Your task to perform on an android device: turn on data saver in the chrome app Image 0: 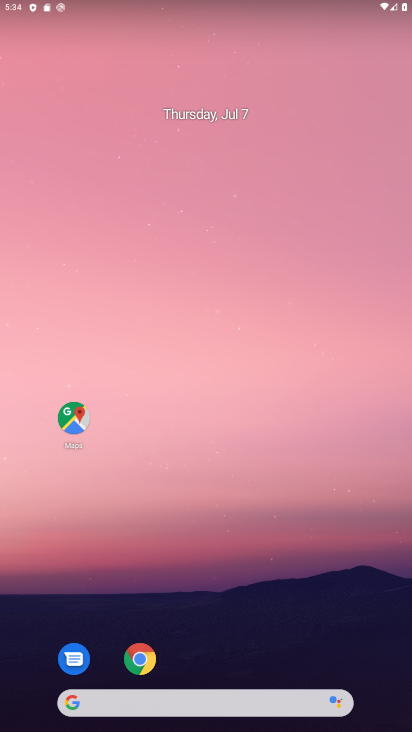
Step 0: drag from (320, 579) to (370, 0)
Your task to perform on an android device: turn on data saver in the chrome app Image 1: 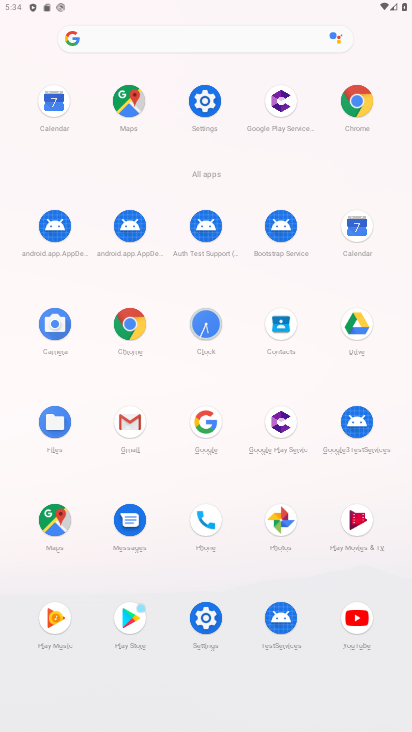
Step 1: click (354, 95)
Your task to perform on an android device: turn on data saver in the chrome app Image 2: 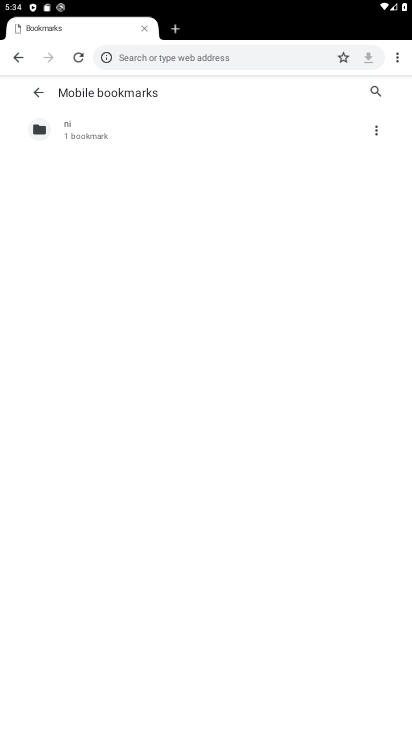
Step 2: click (397, 63)
Your task to perform on an android device: turn on data saver in the chrome app Image 3: 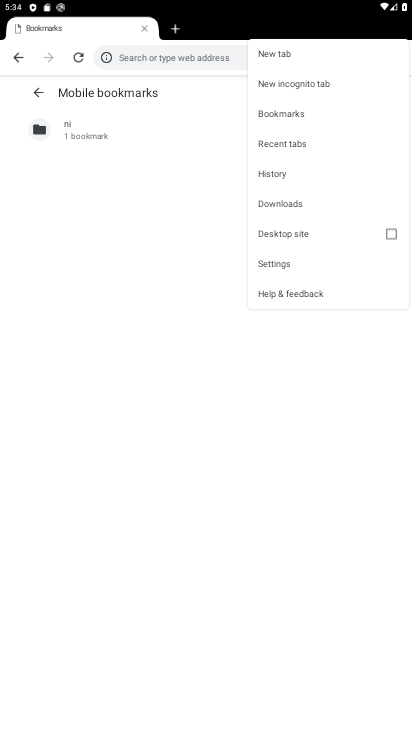
Step 3: click (284, 264)
Your task to perform on an android device: turn on data saver in the chrome app Image 4: 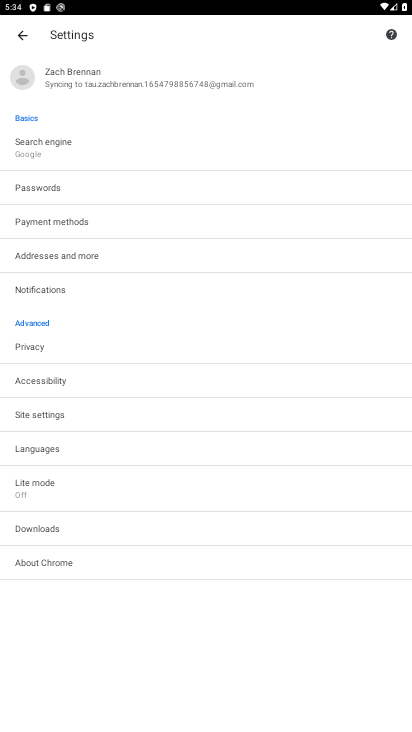
Step 4: click (45, 490)
Your task to perform on an android device: turn on data saver in the chrome app Image 5: 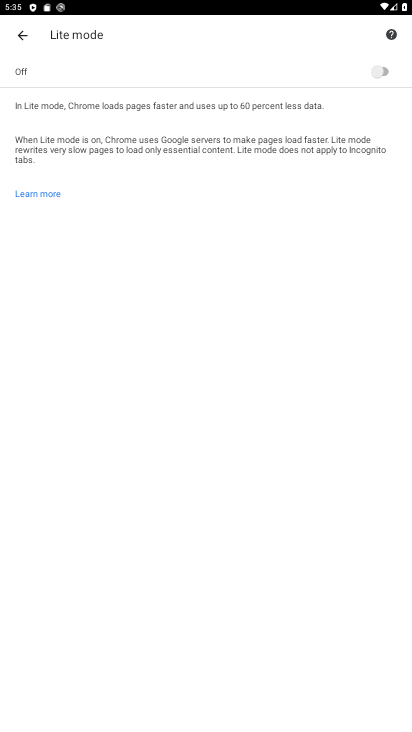
Step 5: click (374, 72)
Your task to perform on an android device: turn on data saver in the chrome app Image 6: 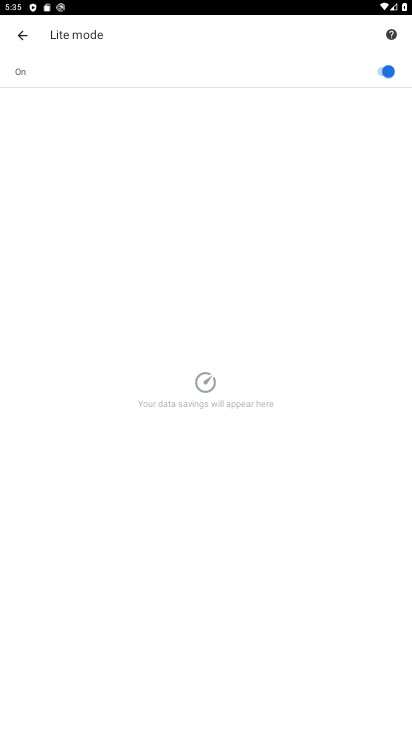
Step 6: task complete